Your task to perform on an android device: Open my contact list Image 0: 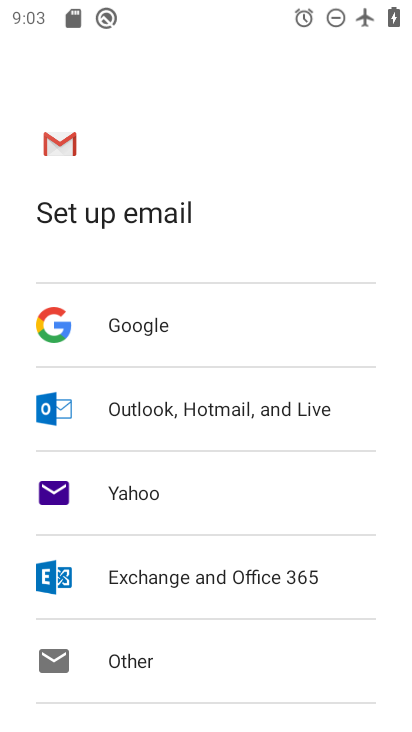
Step 0: press home button
Your task to perform on an android device: Open my contact list Image 1: 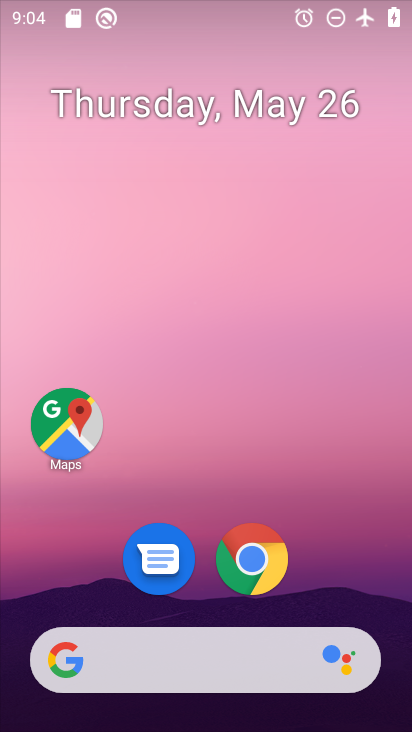
Step 1: drag from (191, 609) to (238, 99)
Your task to perform on an android device: Open my contact list Image 2: 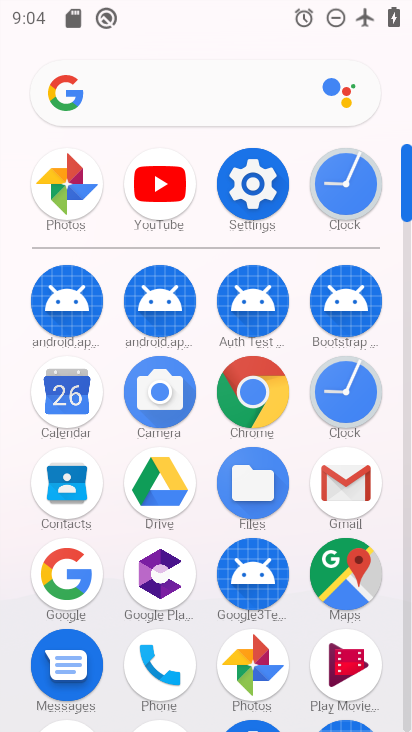
Step 2: click (71, 479)
Your task to perform on an android device: Open my contact list Image 3: 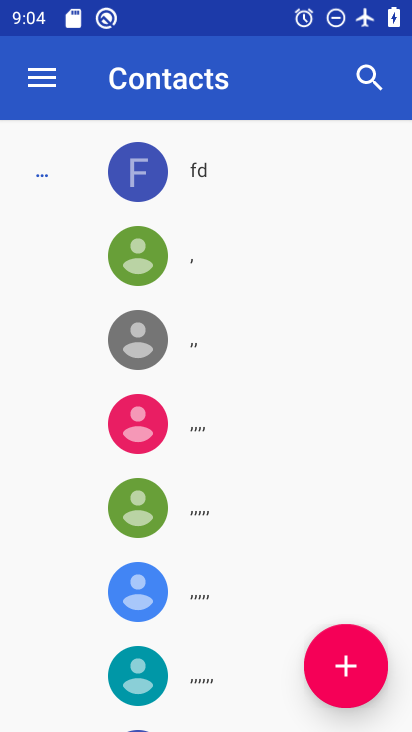
Step 3: task complete